Your task to perform on an android device: turn on notifications settings in the gmail app Image 0: 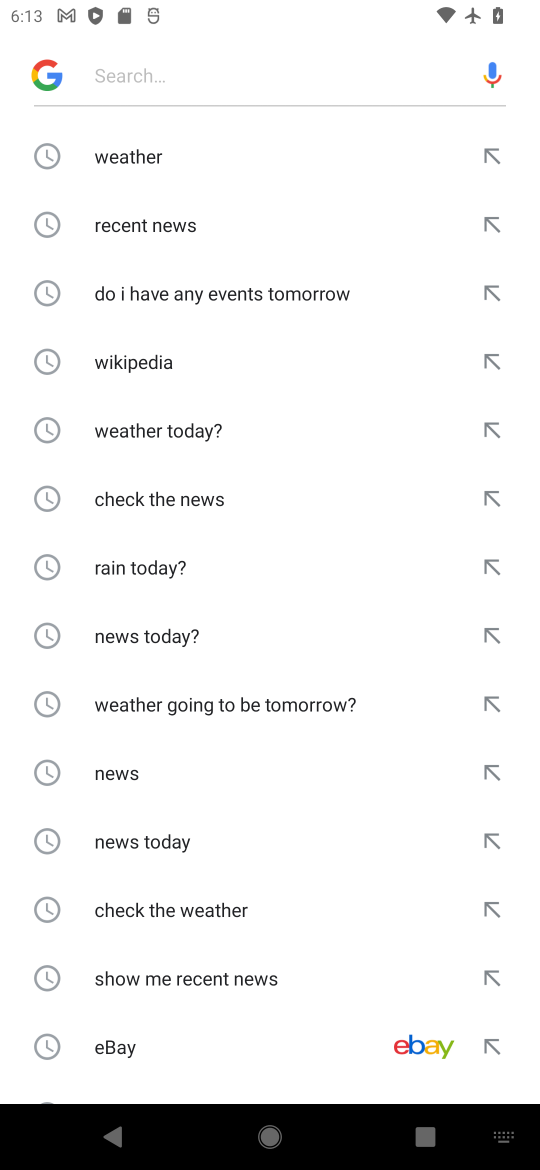
Step 0: press home button
Your task to perform on an android device: turn on notifications settings in the gmail app Image 1: 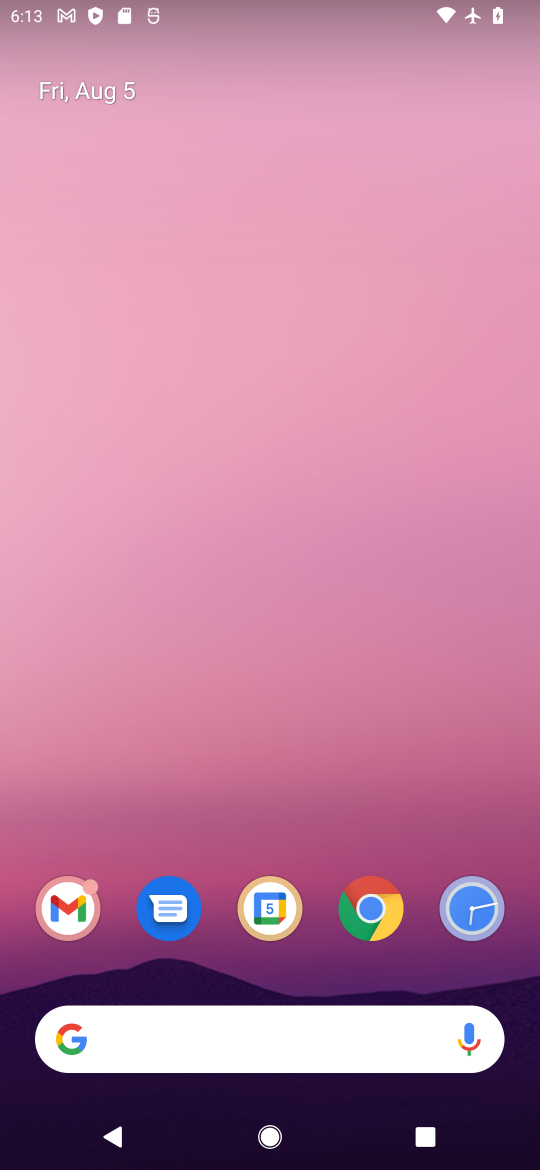
Step 1: click (56, 912)
Your task to perform on an android device: turn on notifications settings in the gmail app Image 2: 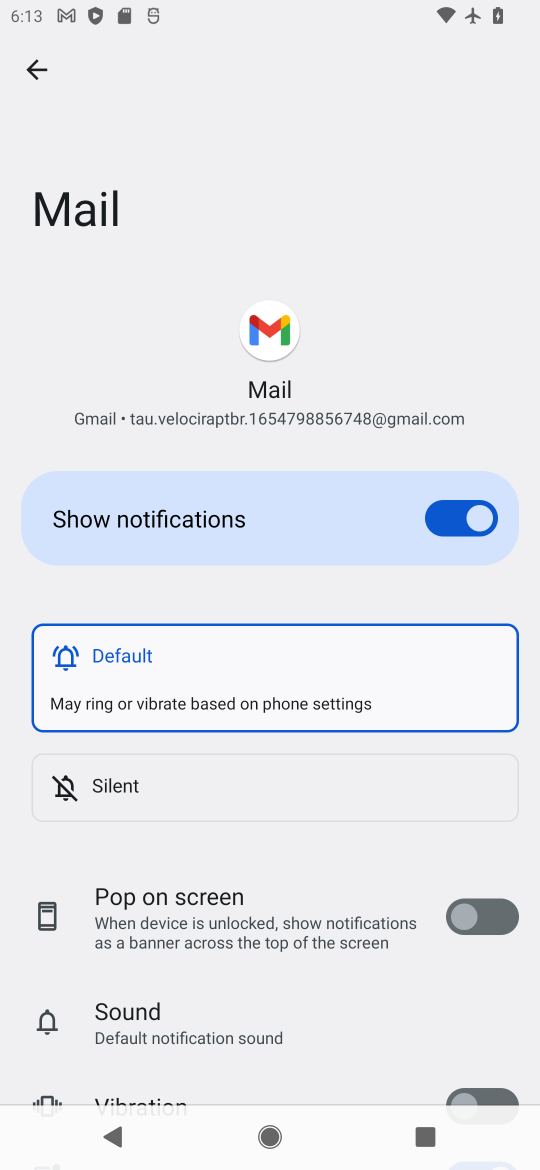
Step 2: task complete